Your task to perform on an android device: Go to calendar. Show me events next week Image 0: 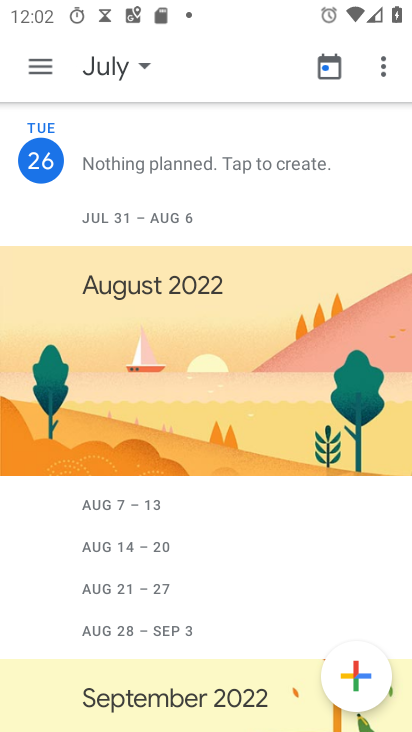
Step 0: press home button
Your task to perform on an android device: Go to calendar. Show me events next week Image 1: 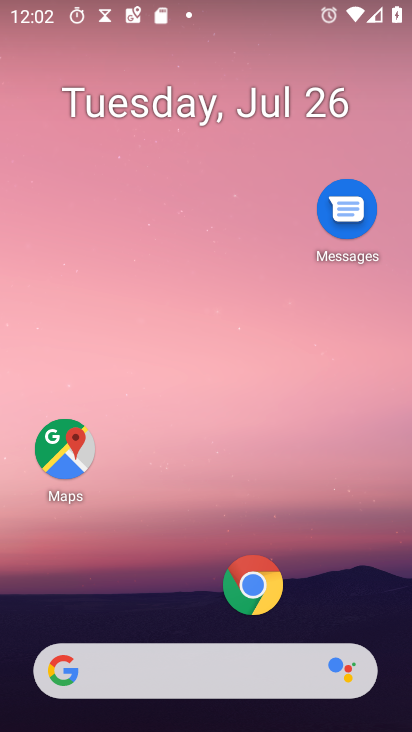
Step 1: drag from (160, 646) to (321, 46)
Your task to perform on an android device: Go to calendar. Show me events next week Image 2: 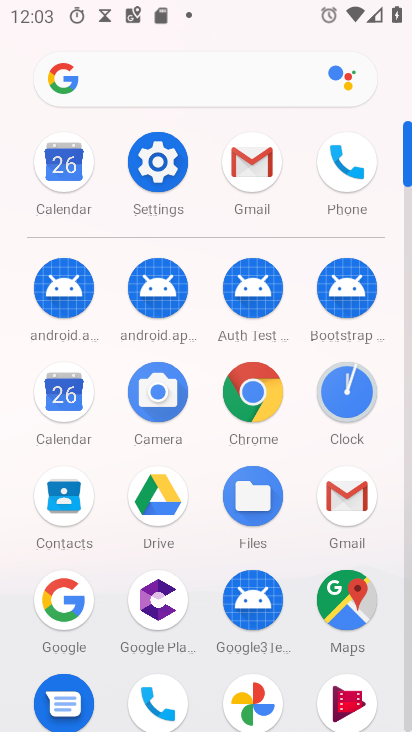
Step 2: click (63, 407)
Your task to perform on an android device: Go to calendar. Show me events next week Image 3: 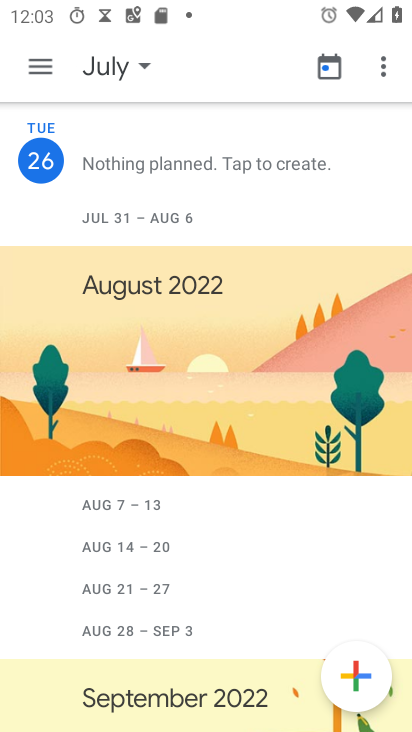
Step 3: click (100, 74)
Your task to perform on an android device: Go to calendar. Show me events next week Image 4: 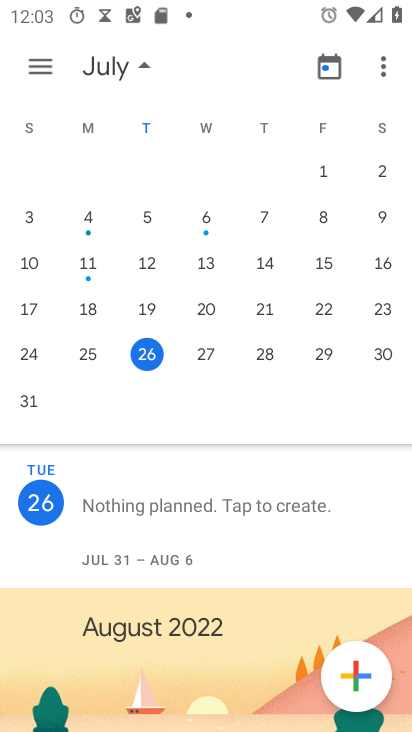
Step 4: click (31, 407)
Your task to perform on an android device: Go to calendar. Show me events next week Image 5: 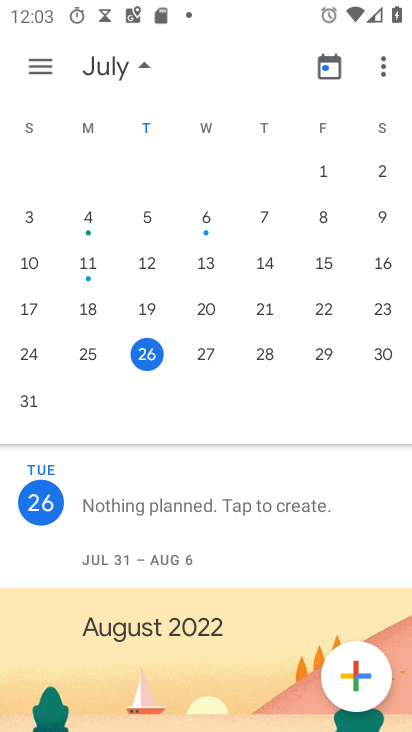
Step 5: click (28, 400)
Your task to perform on an android device: Go to calendar. Show me events next week Image 6: 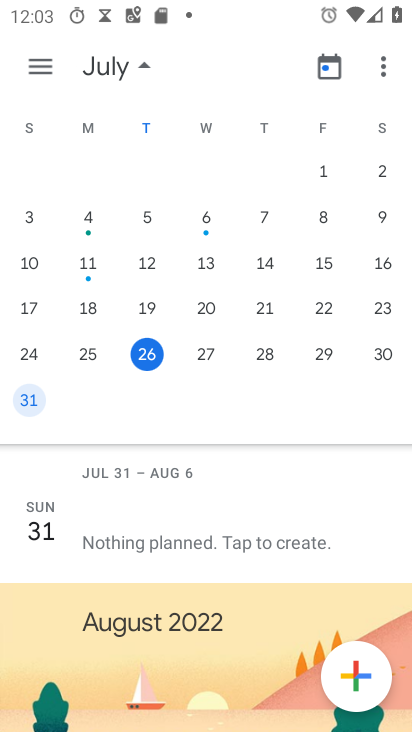
Step 6: click (39, 63)
Your task to perform on an android device: Go to calendar. Show me events next week Image 7: 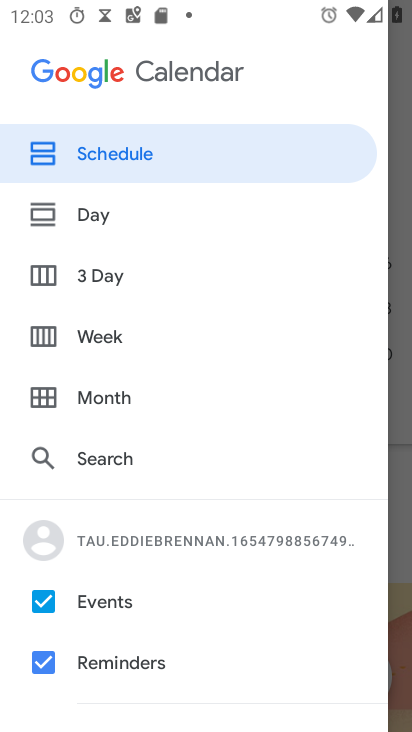
Step 7: click (100, 339)
Your task to perform on an android device: Go to calendar. Show me events next week Image 8: 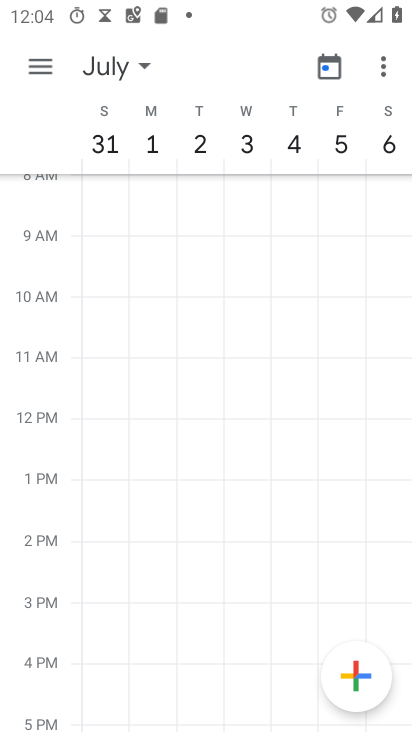
Step 8: task complete